Your task to perform on an android device: toggle notifications settings in the gmail app Image 0: 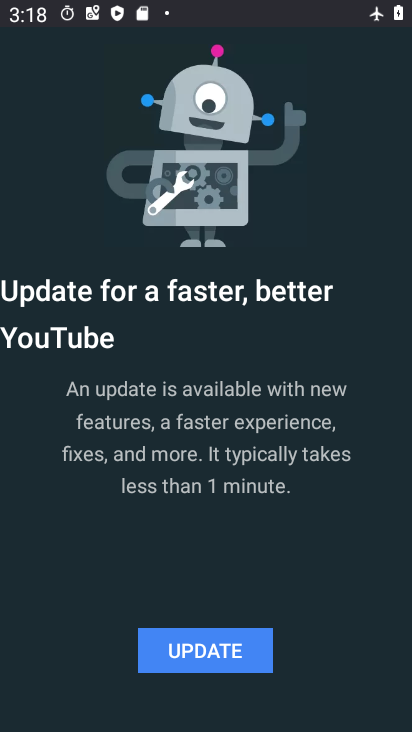
Step 0: press back button
Your task to perform on an android device: toggle notifications settings in the gmail app Image 1: 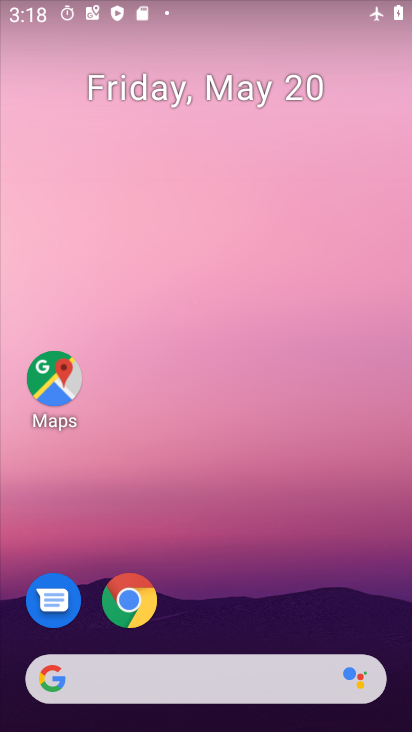
Step 1: drag from (268, 476) to (208, 64)
Your task to perform on an android device: toggle notifications settings in the gmail app Image 2: 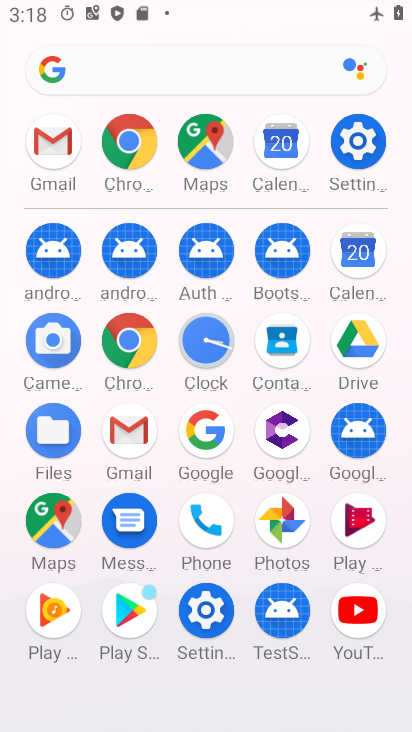
Step 2: drag from (13, 581) to (38, 252)
Your task to perform on an android device: toggle notifications settings in the gmail app Image 3: 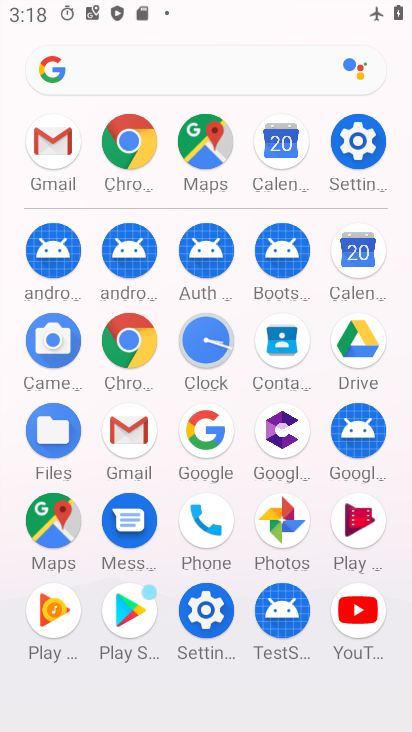
Step 3: click (130, 424)
Your task to perform on an android device: toggle notifications settings in the gmail app Image 4: 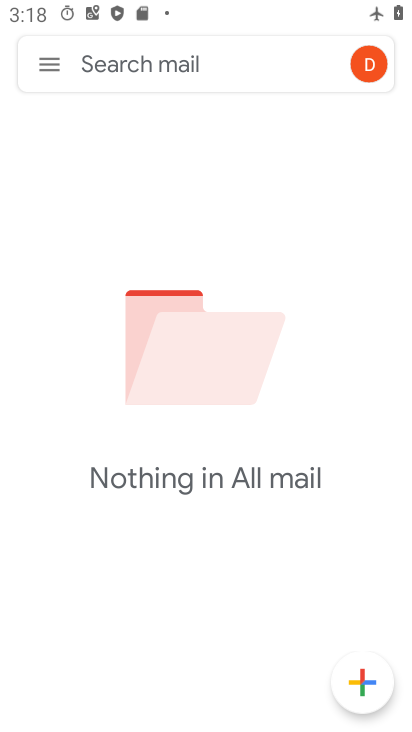
Step 4: click (50, 67)
Your task to perform on an android device: toggle notifications settings in the gmail app Image 5: 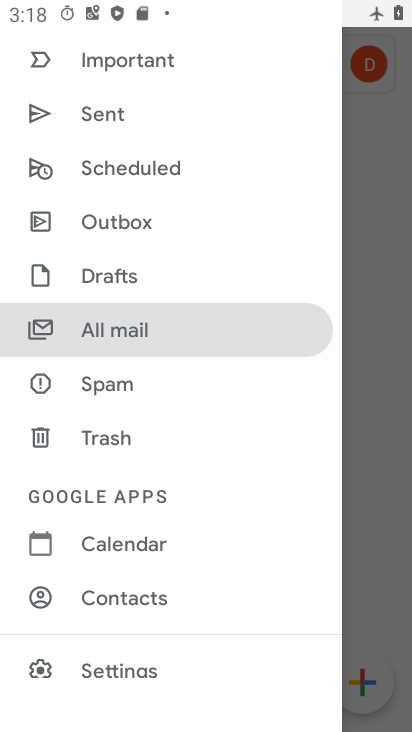
Step 5: drag from (179, 472) to (199, 103)
Your task to perform on an android device: toggle notifications settings in the gmail app Image 6: 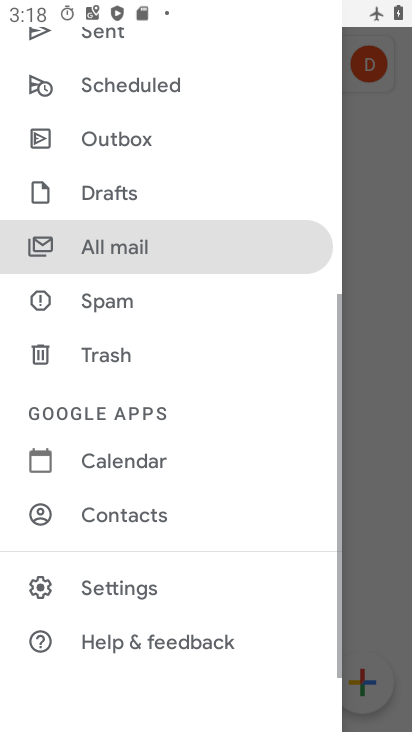
Step 6: click (132, 578)
Your task to perform on an android device: toggle notifications settings in the gmail app Image 7: 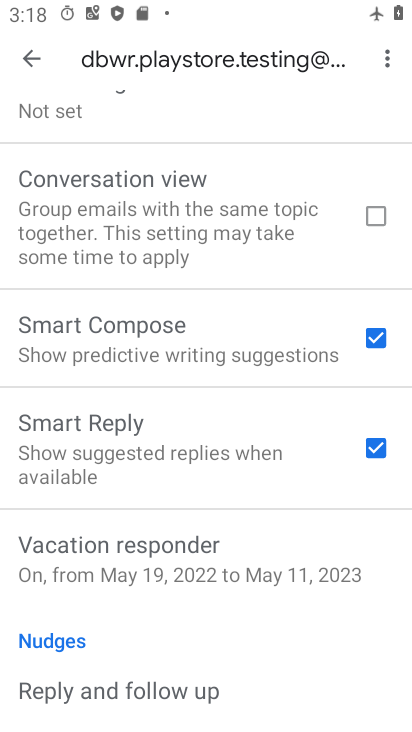
Step 7: drag from (163, 565) to (153, 167)
Your task to perform on an android device: toggle notifications settings in the gmail app Image 8: 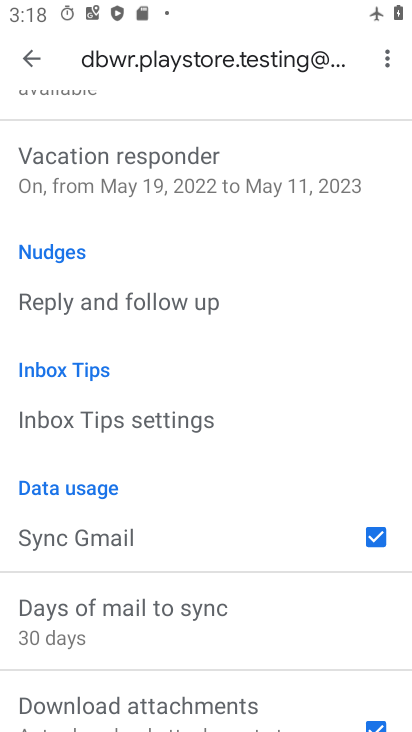
Step 8: click (141, 186)
Your task to perform on an android device: toggle notifications settings in the gmail app Image 9: 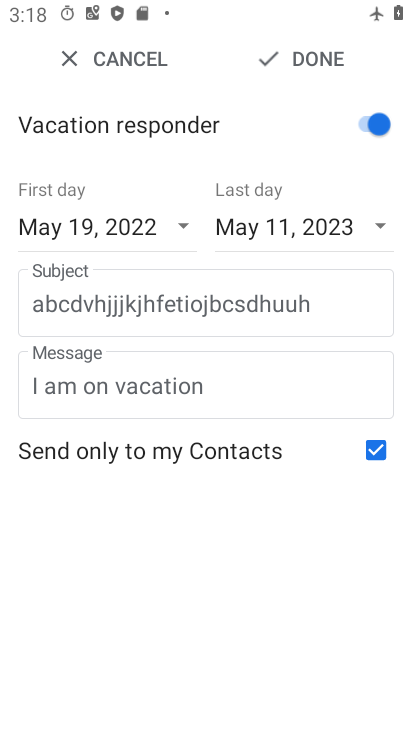
Step 9: click (63, 59)
Your task to perform on an android device: toggle notifications settings in the gmail app Image 10: 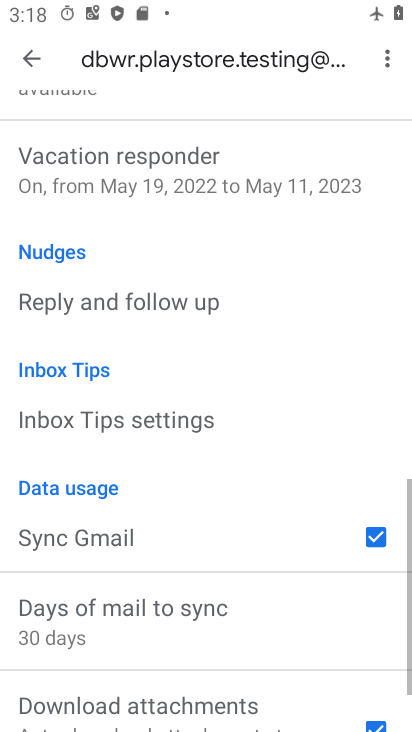
Step 10: drag from (201, 547) to (197, 149)
Your task to perform on an android device: toggle notifications settings in the gmail app Image 11: 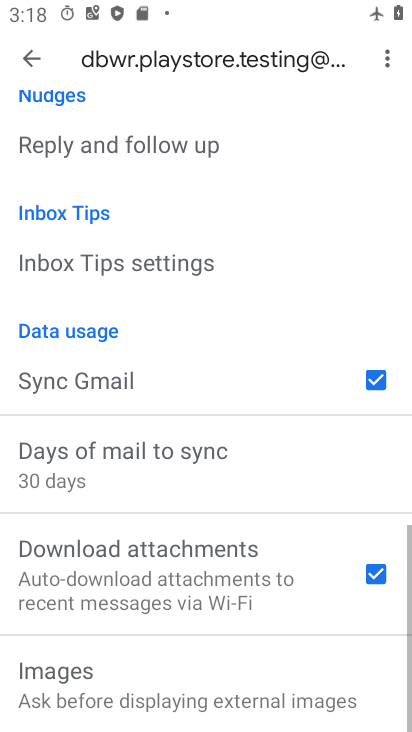
Step 11: drag from (226, 202) to (226, 602)
Your task to perform on an android device: toggle notifications settings in the gmail app Image 12: 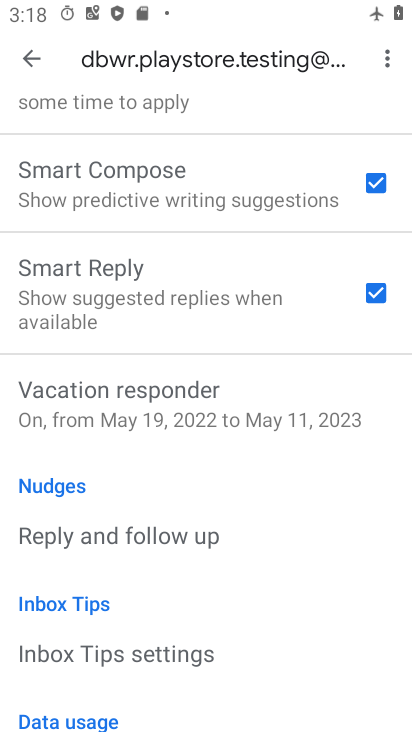
Step 12: drag from (196, 160) to (192, 547)
Your task to perform on an android device: toggle notifications settings in the gmail app Image 13: 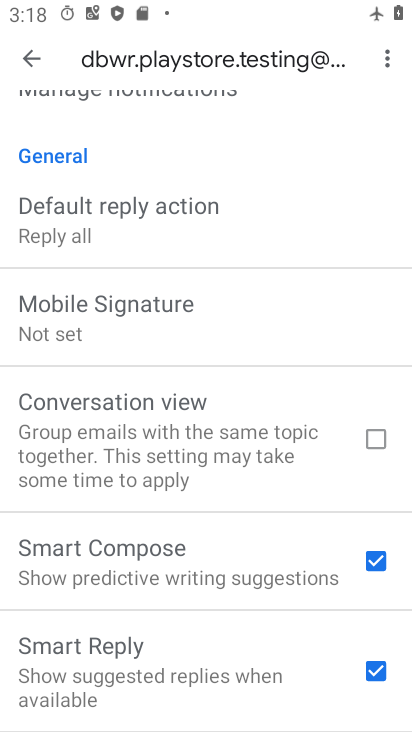
Step 13: drag from (178, 202) to (167, 567)
Your task to perform on an android device: toggle notifications settings in the gmail app Image 14: 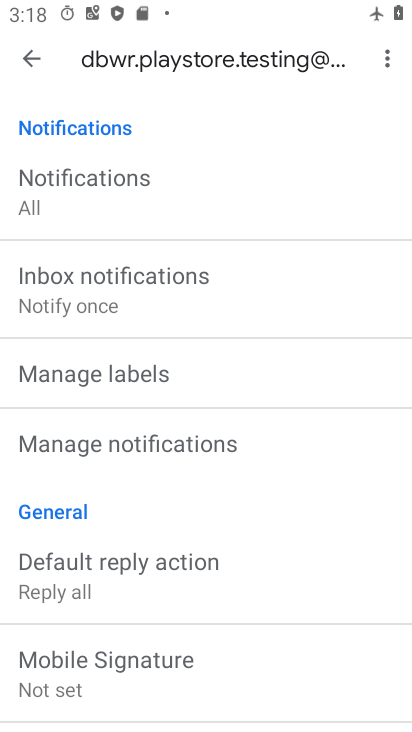
Step 14: click (178, 444)
Your task to perform on an android device: toggle notifications settings in the gmail app Image 15: 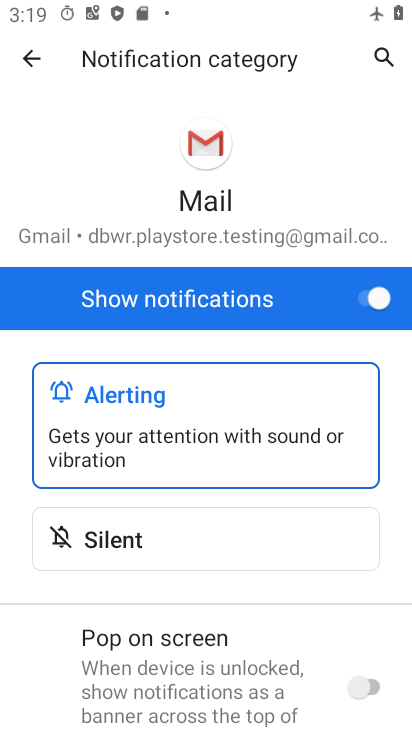
Step 15: click (345, 297)
Your task to perform on an android device: toggle notifications settings in the gmail app Image 16: 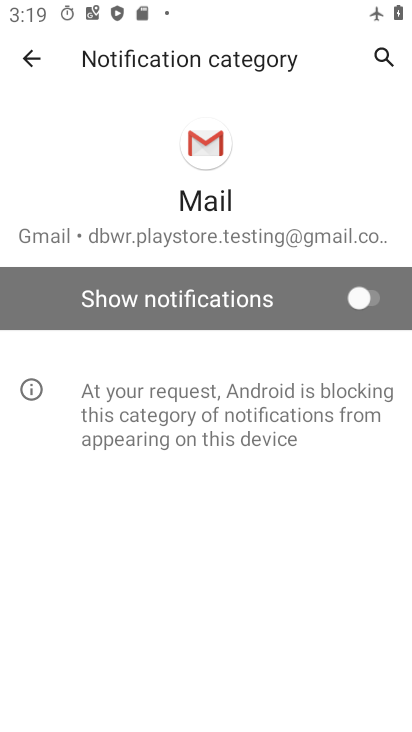
Step 16: task complete